Your task to perform on an android device: Go to wifi settings Image 0: 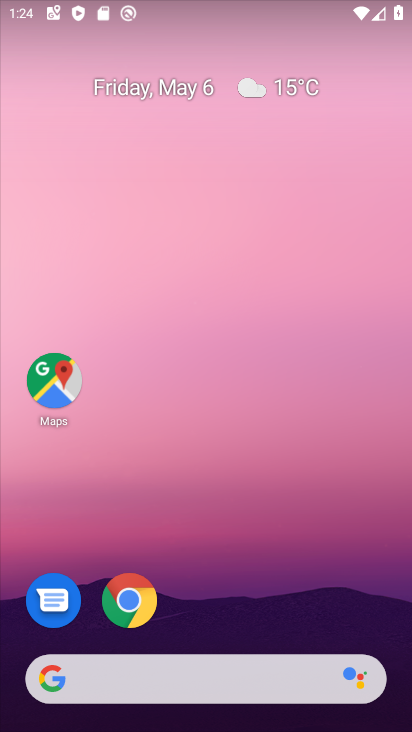
Step 0: drag from (334, 583) to (289, 63)
Your task to perform on an android device: Go to wifi settings Image 1: 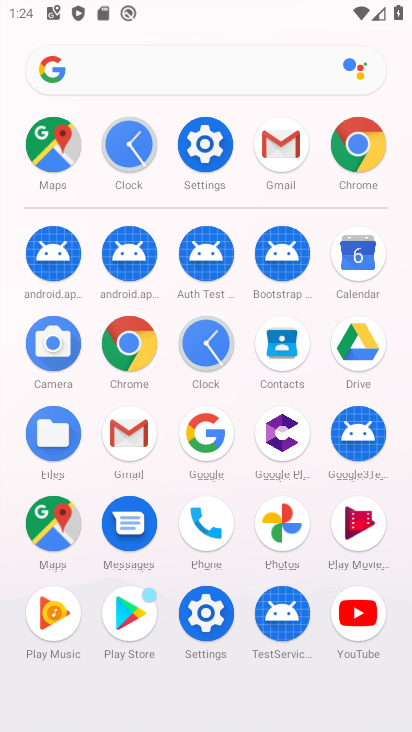
Step 1: click (182, 165)
Your task to perform on an android device: Go to wifi settings Image 2: 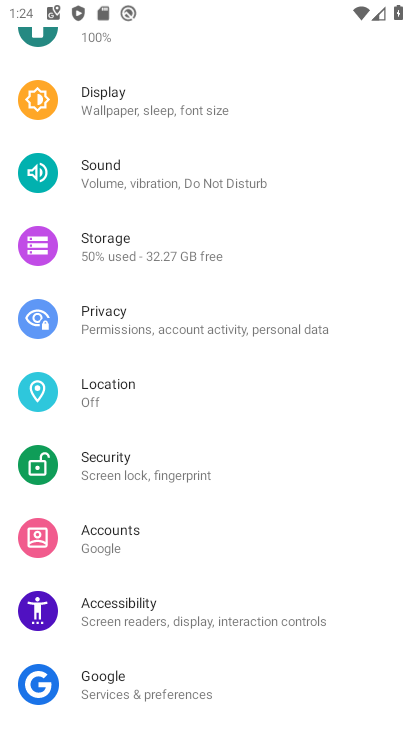
Step 2: drag from (180, 85) to (211, 615)
Your task to perform on an android device: Go to wifi settings Image 3: 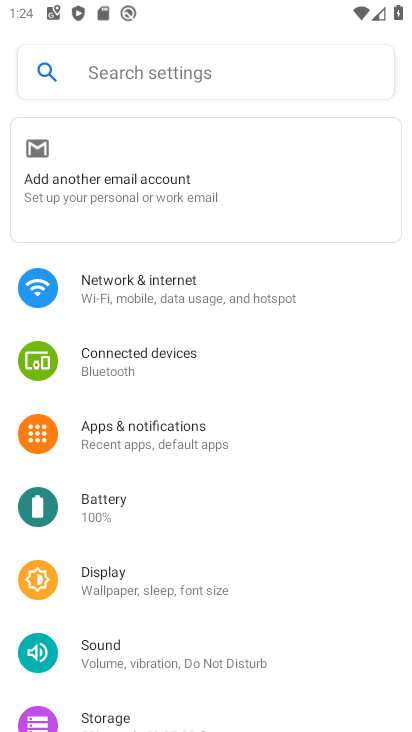
Step 3: click (172, 275)
Your task to perform on an android device: Go to wifi settings Image 4: 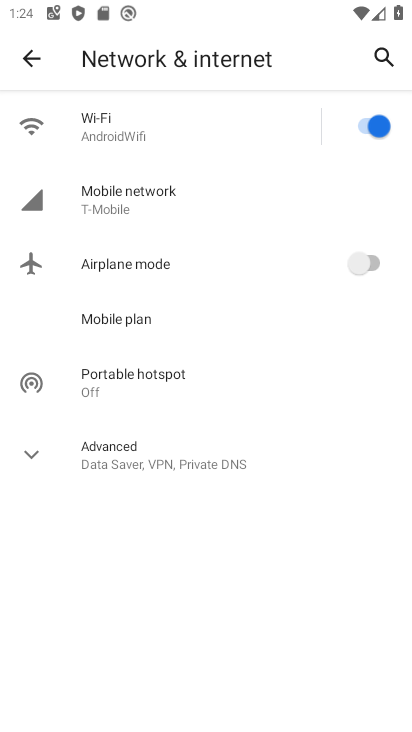
Step 4: click (178, 133)
Your task to perform on an android device: Go to wifi settings Image 5: 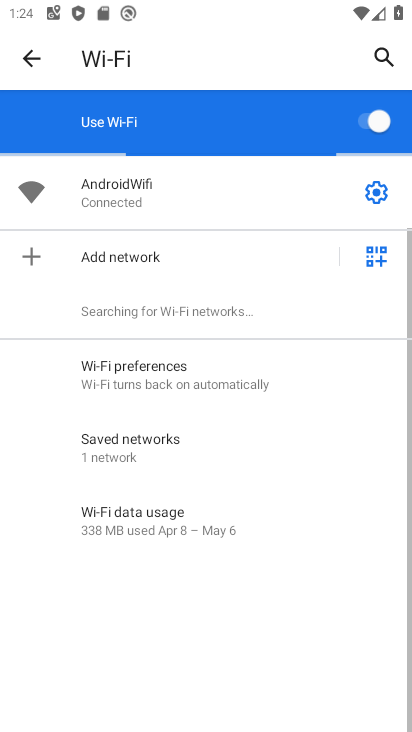
Step 5: task complete